Your task to perform on an android device: delete browsing data in the chrome app Image 0: 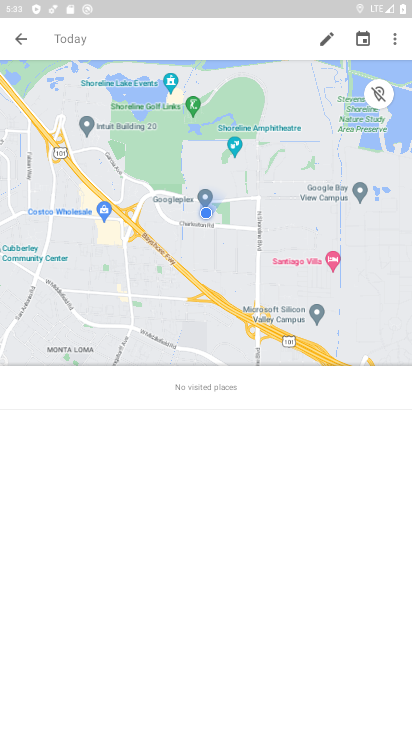
Step 0: press home button
Your task to perform on an android device: delete browsing data in the chrome app Image 1: 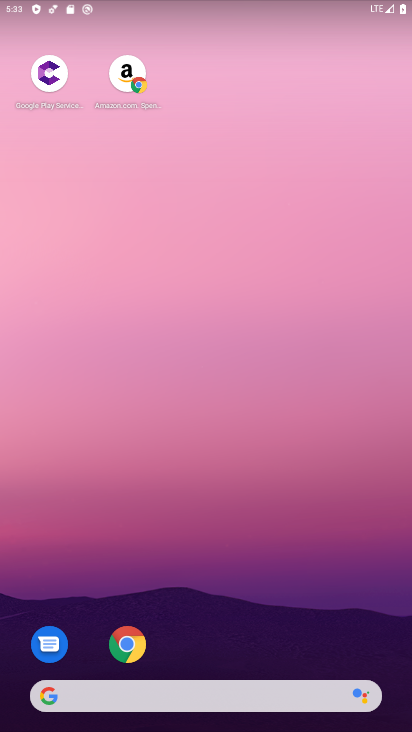
Step 1: drag from (207, 549) to (314, 58)
Your task to perform on an android device: delete browsing data in the chrome app Image 2: 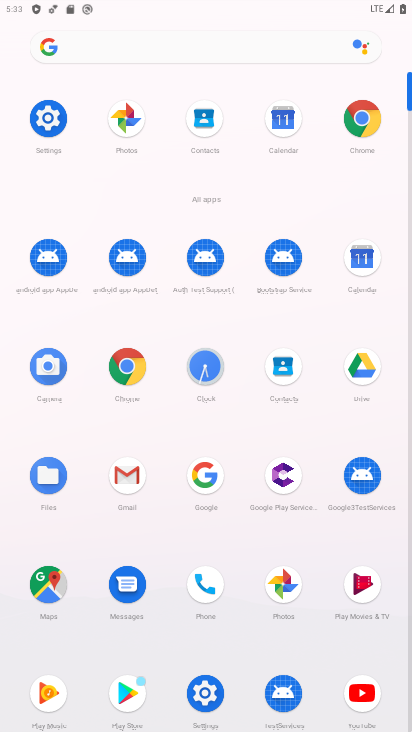
Step 2: click (139, 372)
Your task to perform on an android device: delete browsing data in the chrome app Image 3: 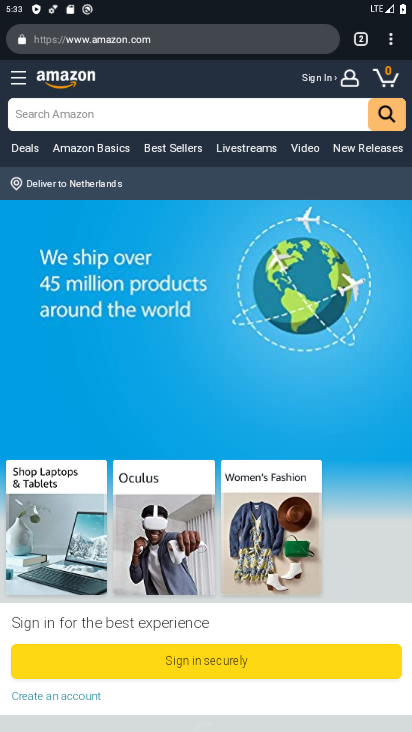
Step 3: drag from (388, 39) to (252, 473)
Your task to perform on an android device: delete browsing data in the chrome app Image 4: 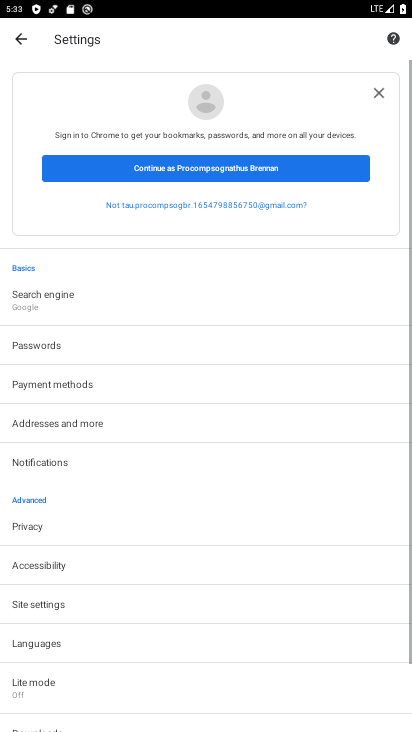
Step 4: drag from (112, 547) to (154, 287)
Your task to perform on an android device: delete browsing data in the chrome app Image 5: 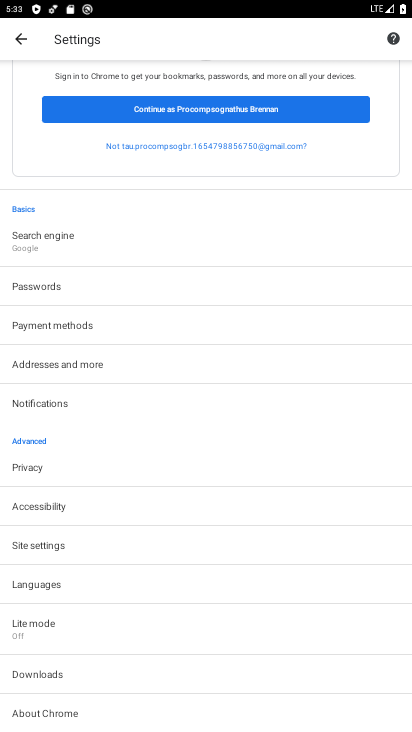
Step 5: click (92, 549)
Your task to perform on an android device: delete browsing data in the chrome app Image 6: 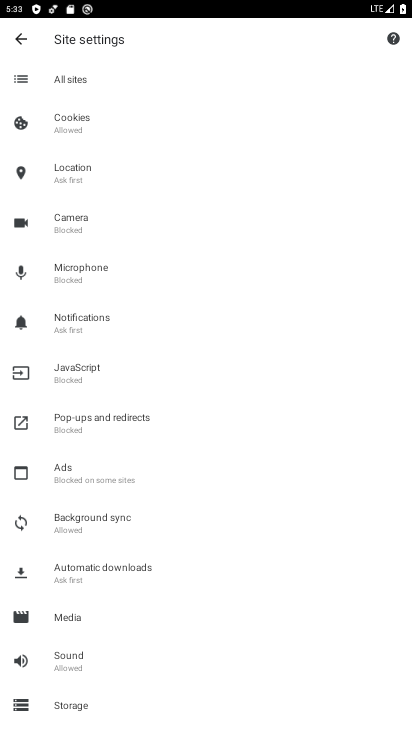
Step 6: press back button
Your task to perform on an android device: delete browsing data in the chrome app Image 7: 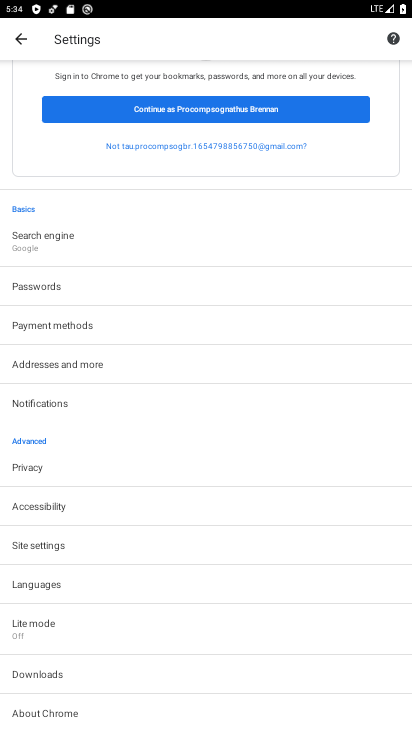
Step 7: drag from (75, 657) to (91, 451)
Your task to perform on an android device: delete browsing data in the chrome app Image 8: 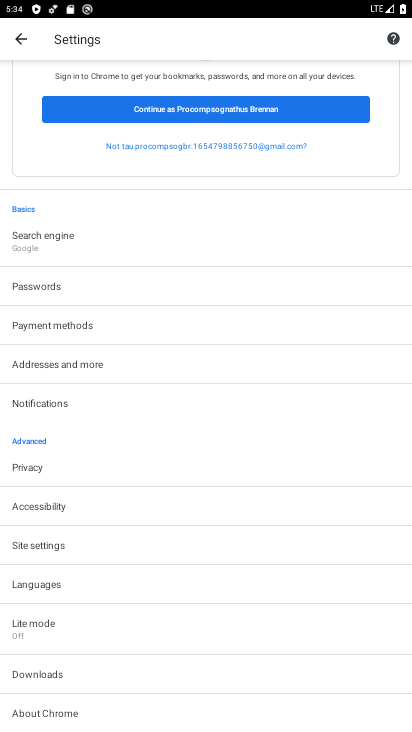
Step 8: click (56, 472)
Your task to perform on an android device: delete browsing data in the chrome app Image 9: 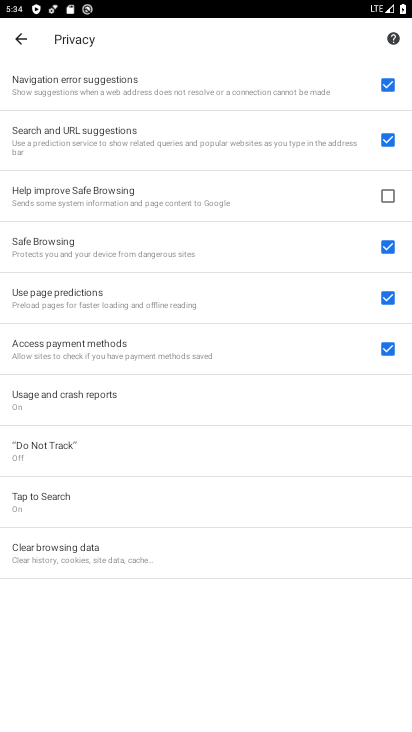
Step 9: click (126, 553)
Your task to perform on an android device: delete browsing data in the chrome app Image 10: 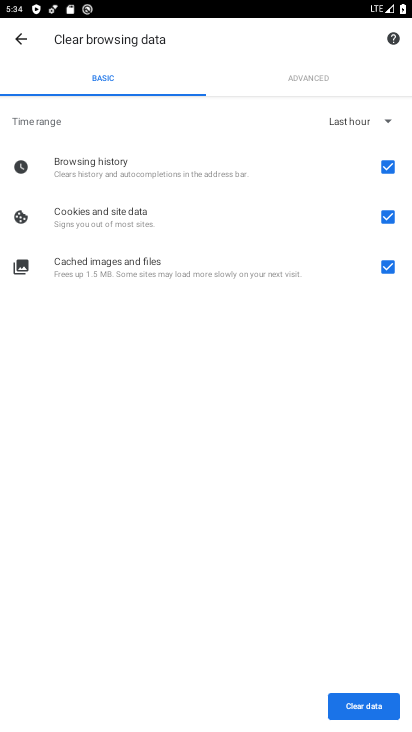
Step 10: click (363, 709)
Your task to perform on an android device: delete browsing data in the chrome app Image 11: 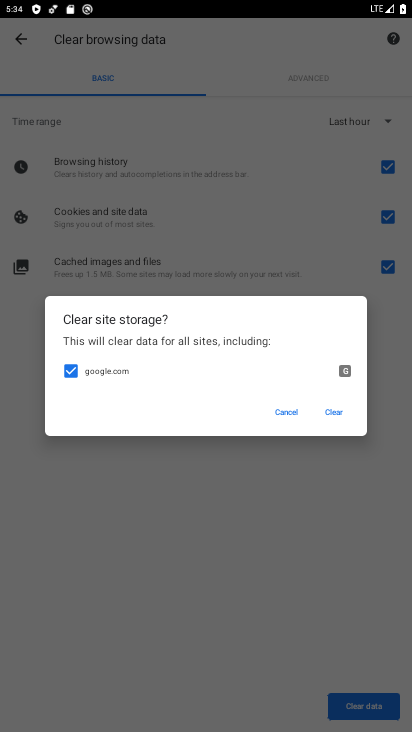
Step 11: click (334, 414)
Your task to perform on an android device: delete browsing data in the chrome app Image 12: 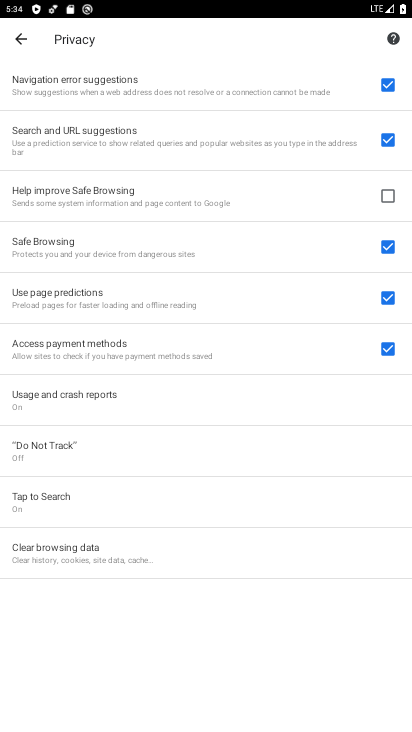
Step 12: task complete